Your task to perform on an android device: clear history in the chrome app Image 0: 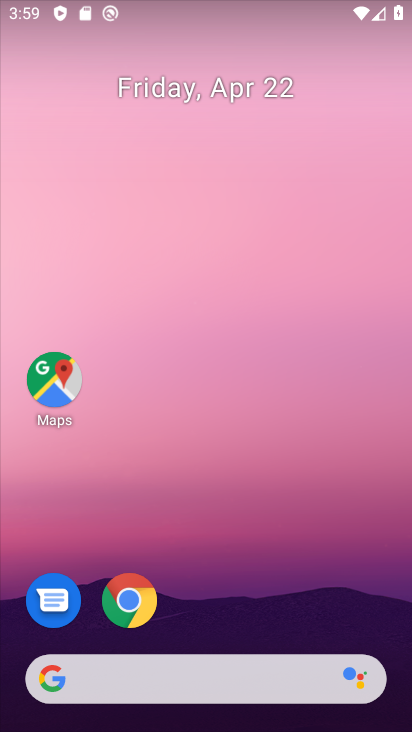
Step 0: click (129, 601)
Your task to perform on an android device: clear history in the chrome app Image 1: 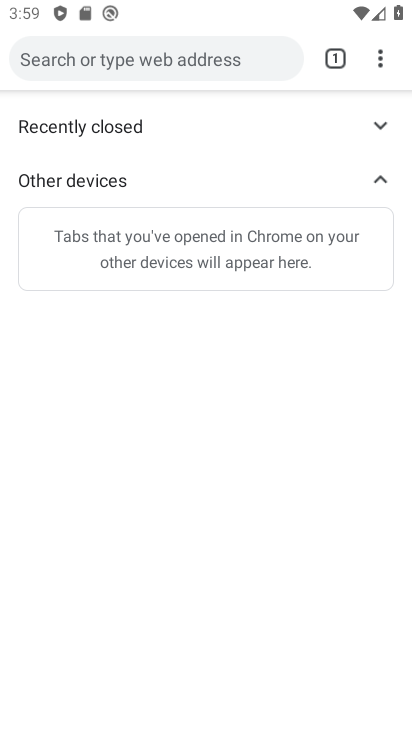
Step 1: click (390, 58)
Your task to perform on an android device: clear history in the chrome app Image 2: 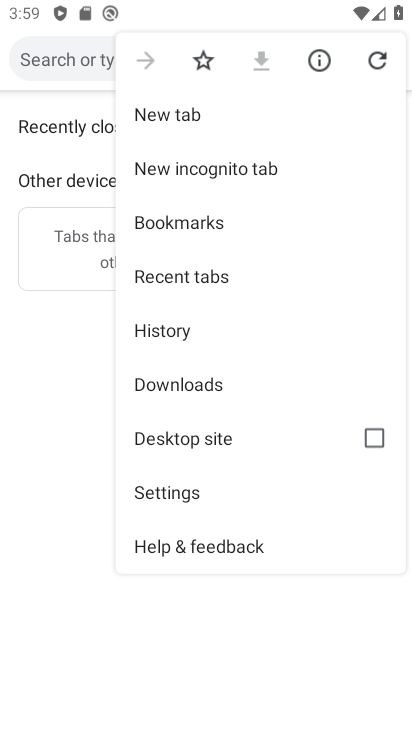
Step 2: click (182, 335)
Your task to perform on an android device: clear history in the chrome app Image 3: 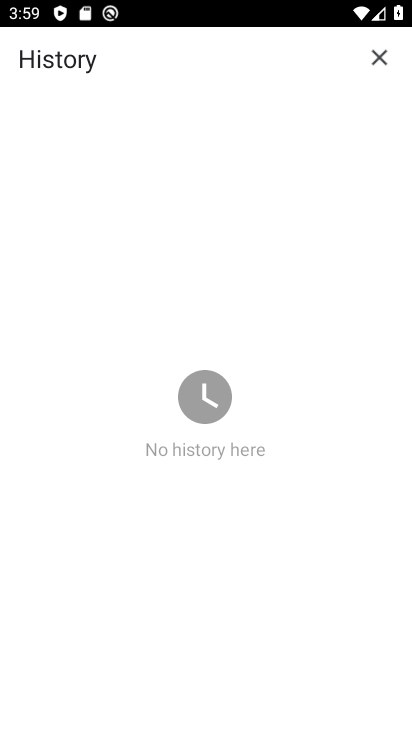
Step 3: task complete